Your task to perform on an android device: Open Google Maps Image 0: 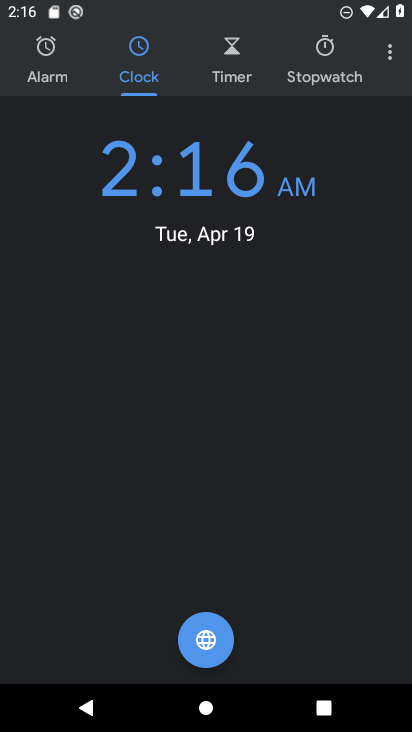
Step 0: press home button
Your task to perform on an android device: Open Google Maps Image 1: 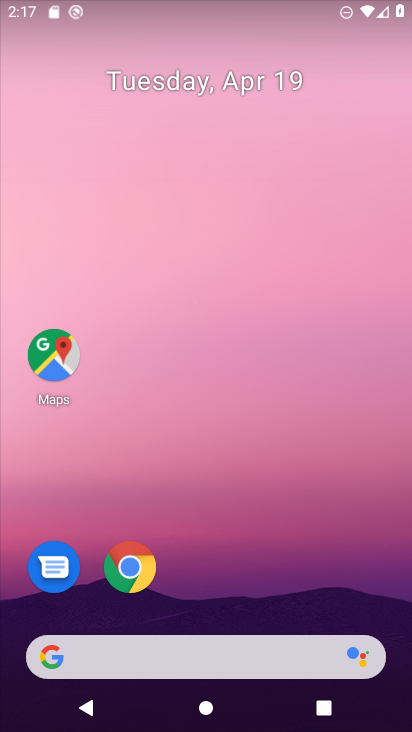
Step 1: click (52, 365)
Your task to perform on an android device: Open Google Maps Image 2: 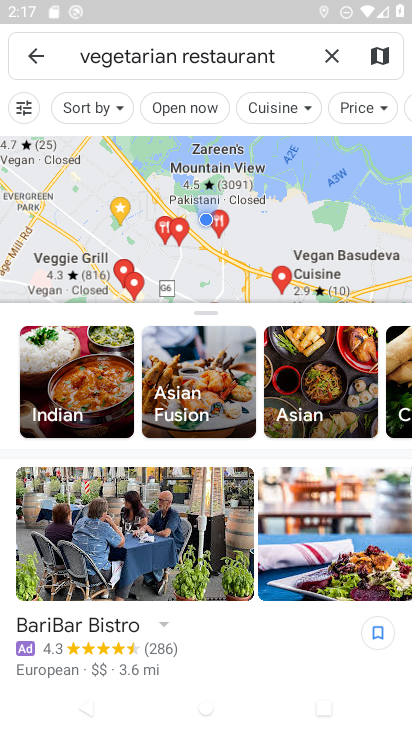
Step 2: click (331, 58)
Your task to perform on an android device: Open Google Maps Image 3: 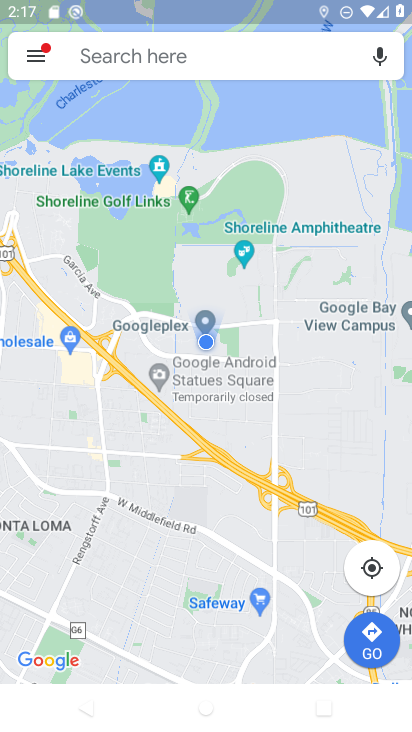
Step 3: task complete